Your task to perform on an android device: open app "Google Pay: Save, Pay, Manage" Image 0: 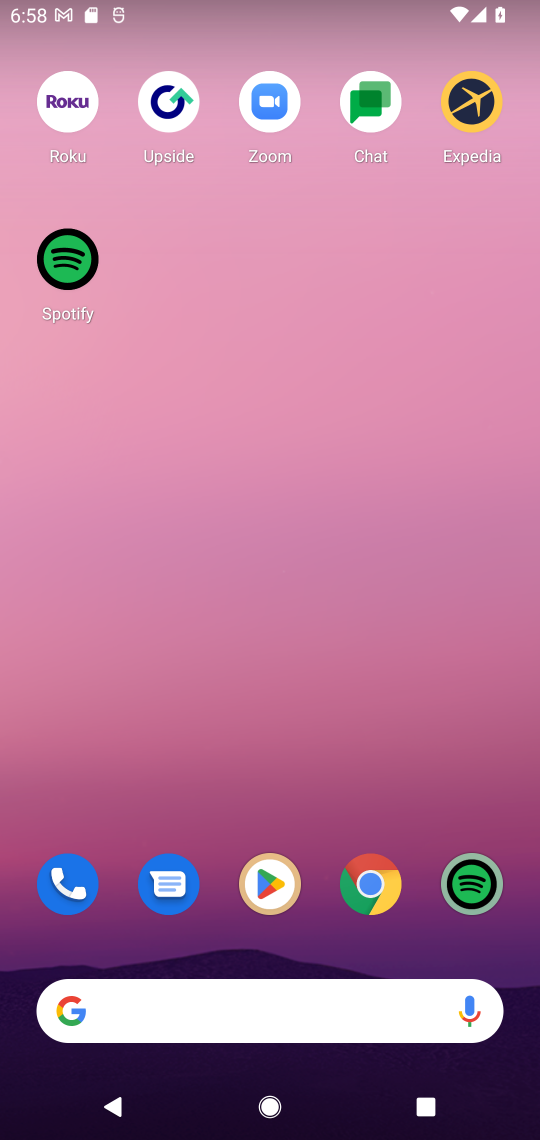
Step 0: drag from (253, 1013) to (344, 141)
Your task to perform on an android device: open app "Google Pay: Save, Pay, Manage" Image 1: 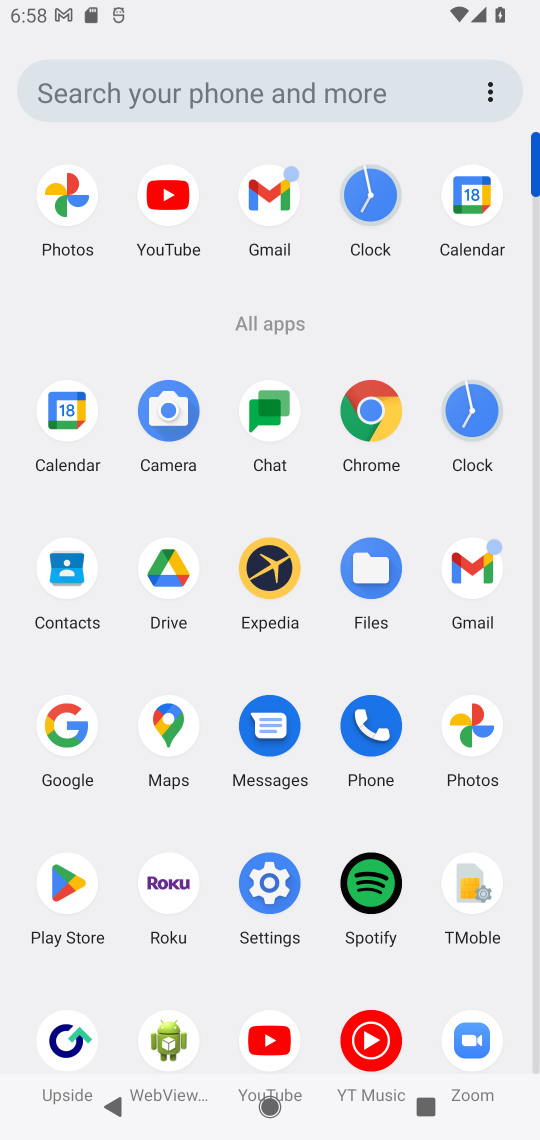
Step 1: click (74, 882)
Your task to perform on an android device: open app "Google Pay: Save, Pay, Manage" Image 2: 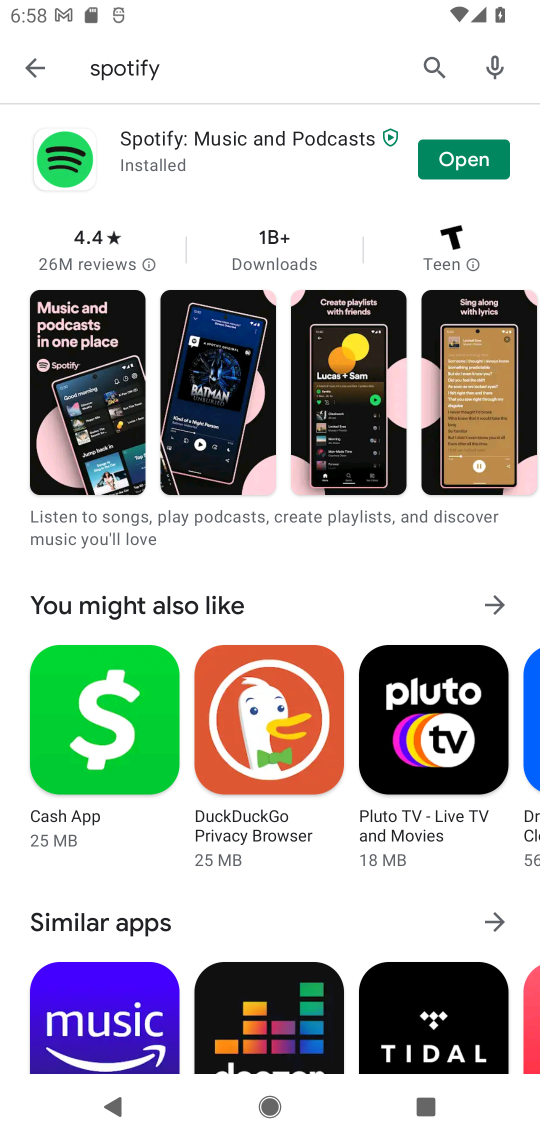
Step 2: press back button
Your task to perform on an android device: open app "Google Pay: Save, Pay, Manage" Image 3: 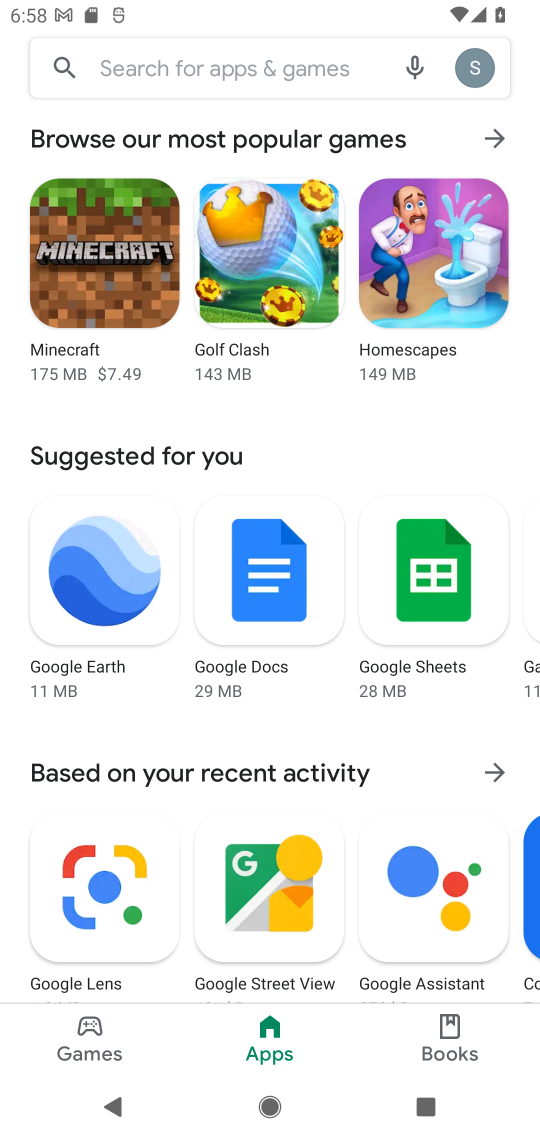
Step 3: click (211, 70)
Your task to perform on an android device: open app "Google Pay: Save, Pay, Manage" Image 4: 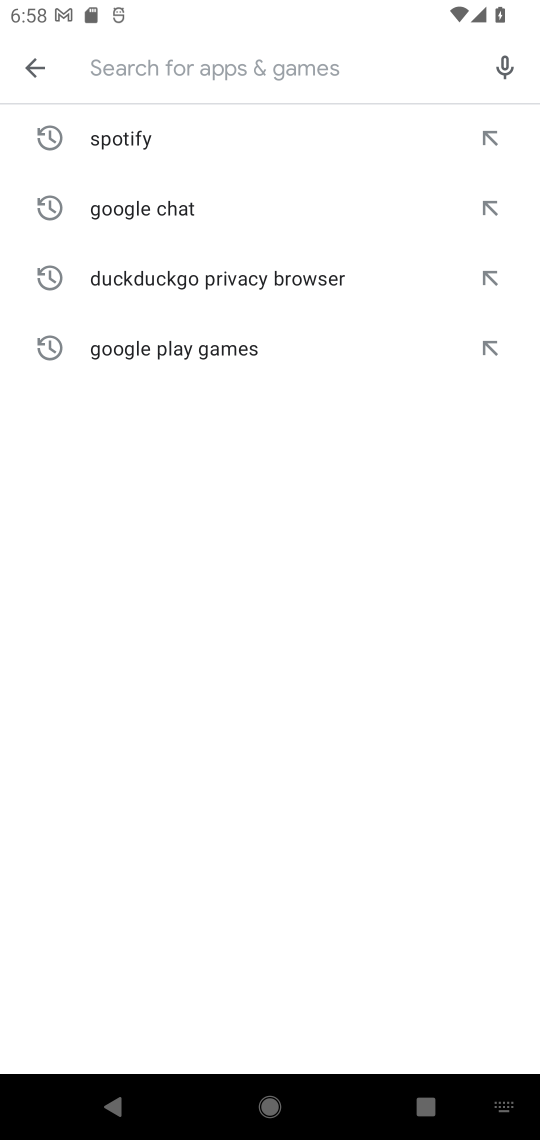
Step 4: type "Google Pay: Save, Pay, Manage"
Your task to perform on an android device: open app "Google Pay: Save, Pay, Manage" Image 5: 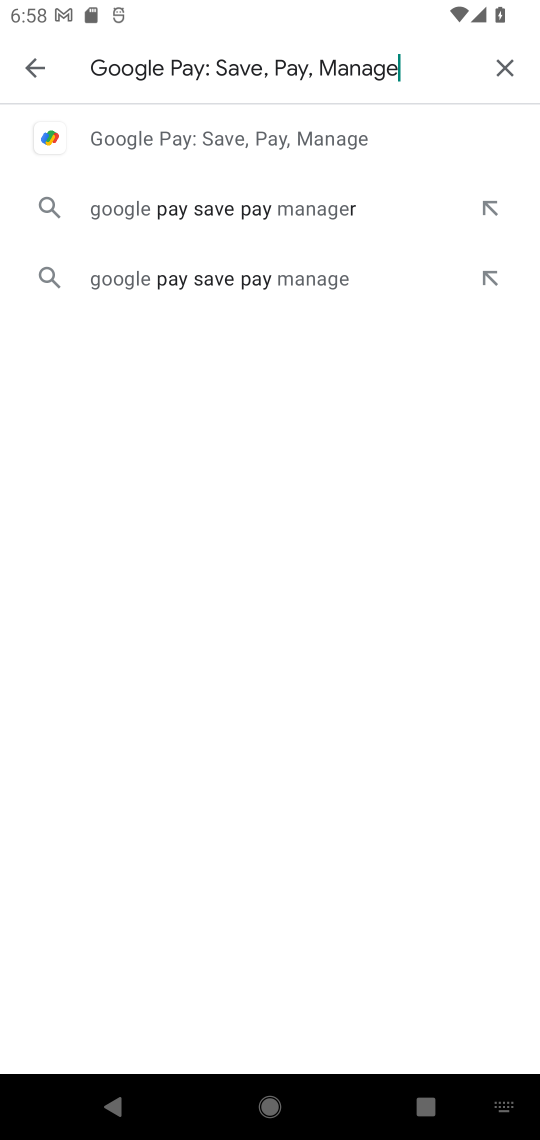
Step 5: click (316, 136)
Your task to perform on an android device: open app "Google Pay: Save, Pay, Manage" Image 6: 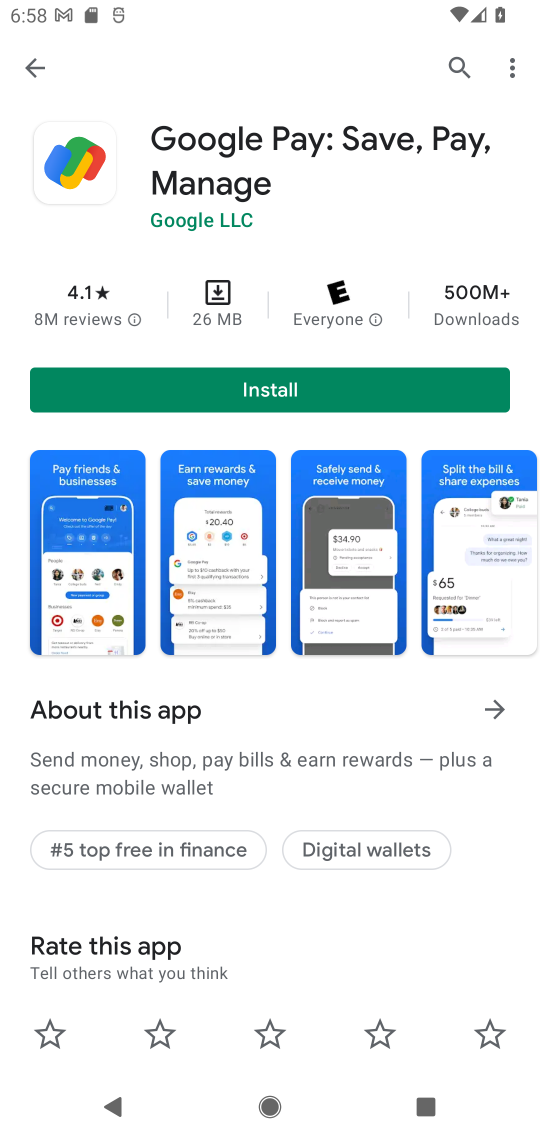
Step 6: task complete